Your task to perform on an android device: Go to settings Image 0: 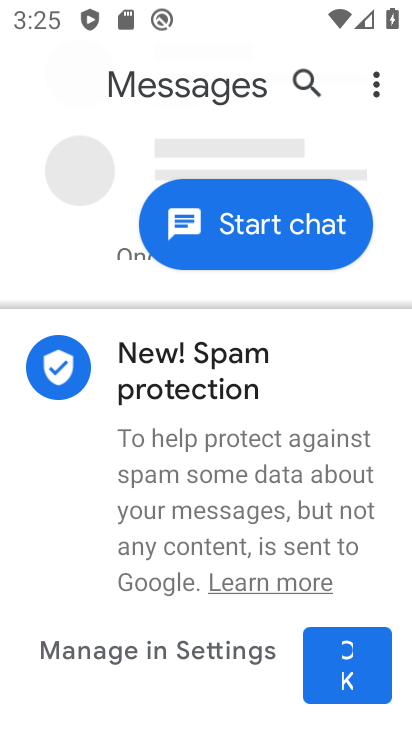
Step 0: press home button
Your task to perform on an android device: Go to settings Image 1: 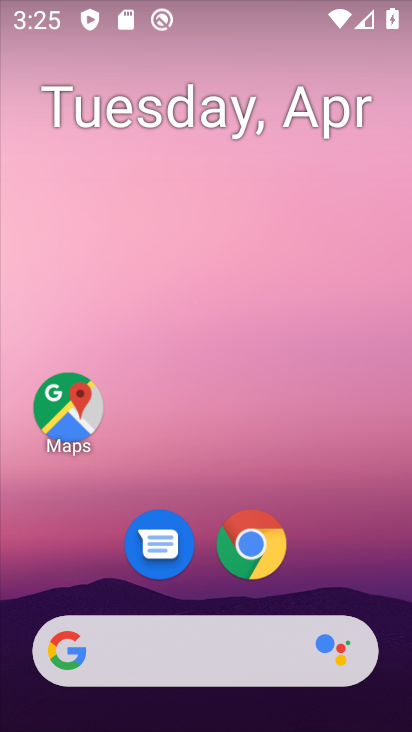
Step 1: drag from (337, 583) to (313, 146)
Your task to perform on an android device: Go to settings Image 2: 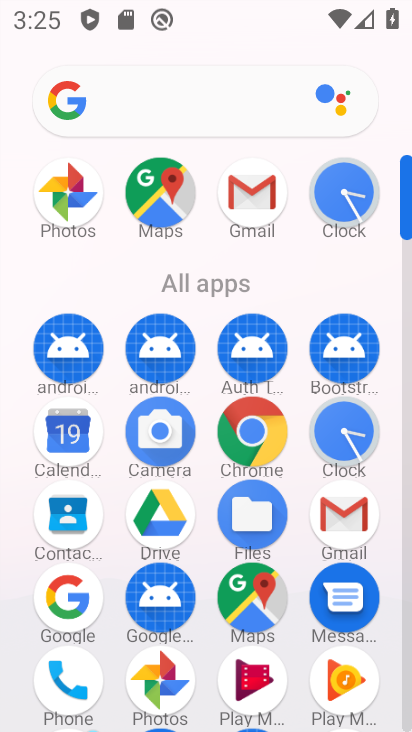
Step 2: drag from (209, 668) to (202, 315)
Your task to perform on an android device: Go to settings Image 3: 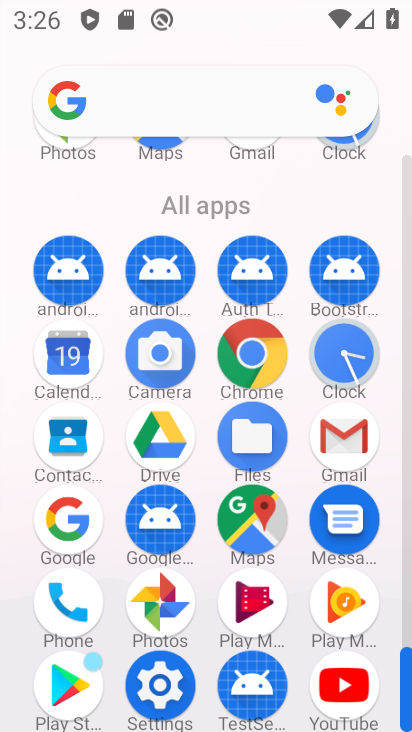
Step 3: click (173, 678)
Your task to perform on an android device: Go to settings Image 4: 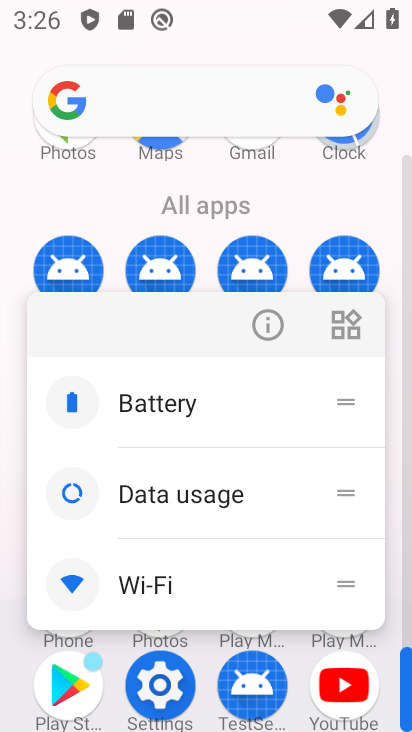
Step 4: click (170, 680)
Your task to perform on an android device: Go to settings Image 5: 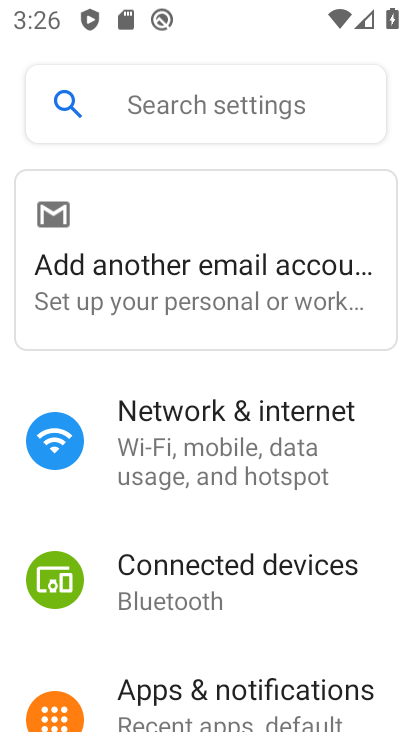
Step 5: task complete